Your task to perform on an android device: What's the weather? Image 0: 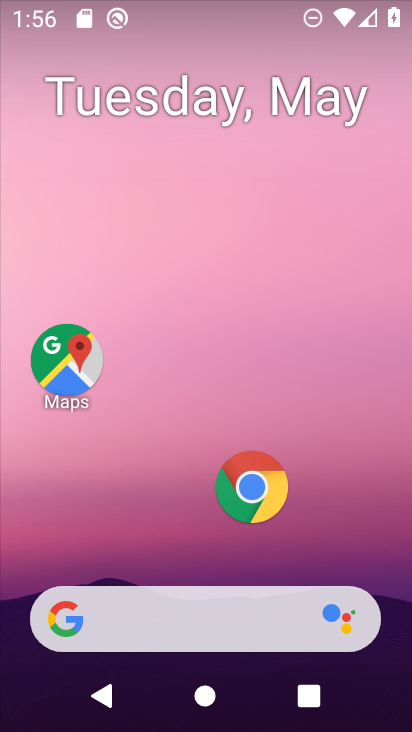
Step 0: drag from (204, 569) to (129, 156)
Your task to perform on an android device: What's the weather? Image 1: 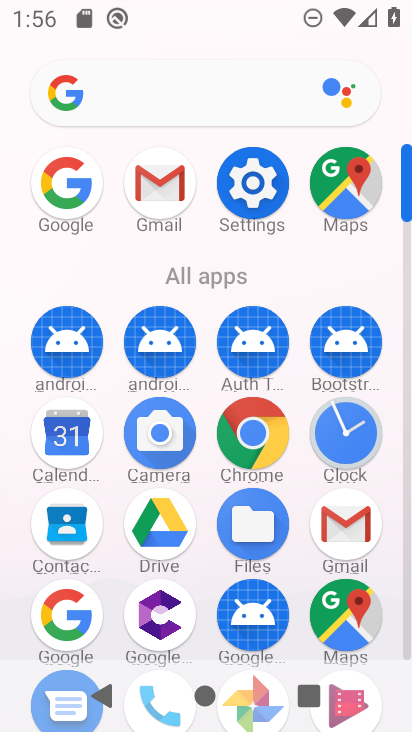
Step 1: click (53, 633)
Your task to perform on an android device: What's the weather? Image 2: 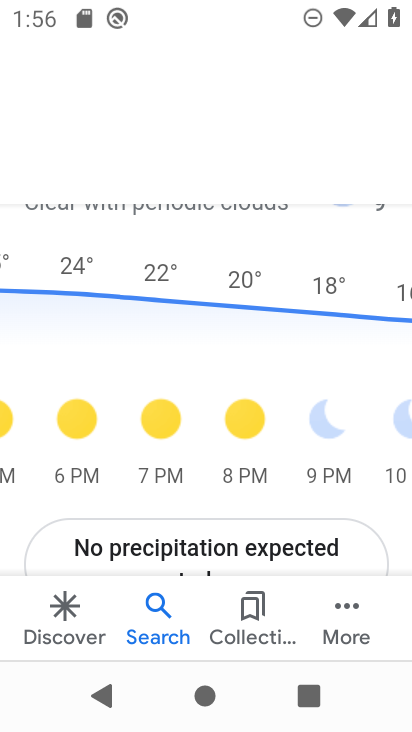
Step 2: task complete